Your task to perform on an android device: Show me productivity apps on the Play Store Image 0: 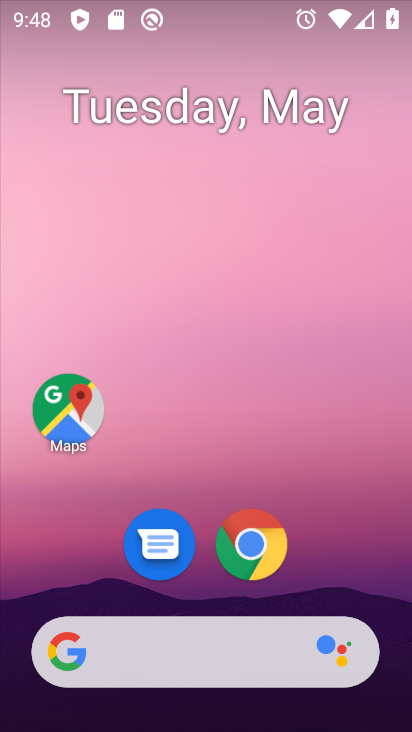
Step 0: drag from (332, 500) to (332, 79)
Your task to perform on an android device: Show me productivity apps on the Play Store Image 1: 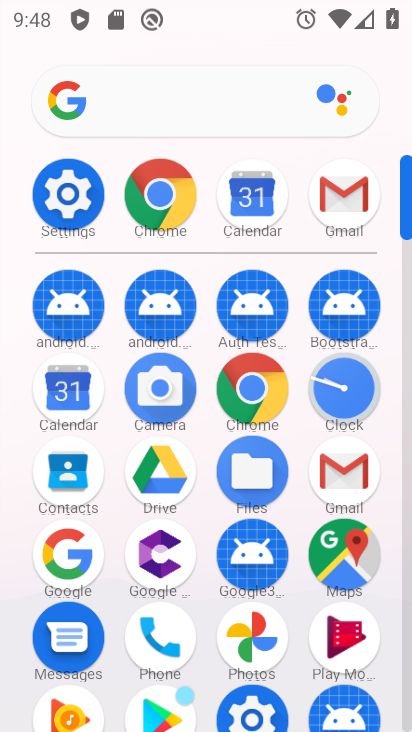
Step 1: drag from (290, 666) to (320, 400)
Your task to perform on an android device: Show me productivity apps on the Play Store Image 2: 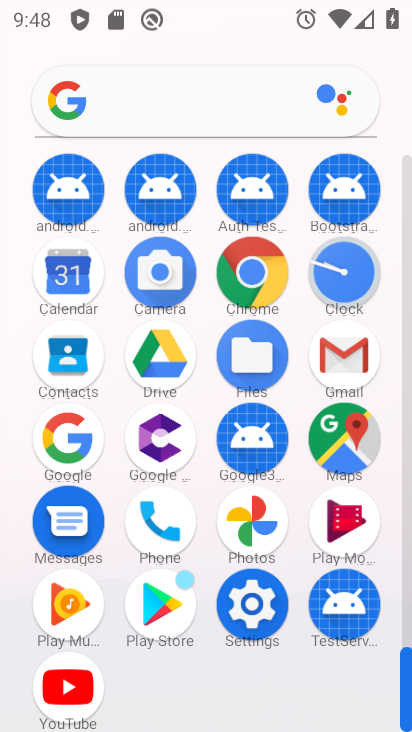
Step 2: click (169, 588)
Your task to perform on an android device: Show me productivity apps on the Play Store Image 3: 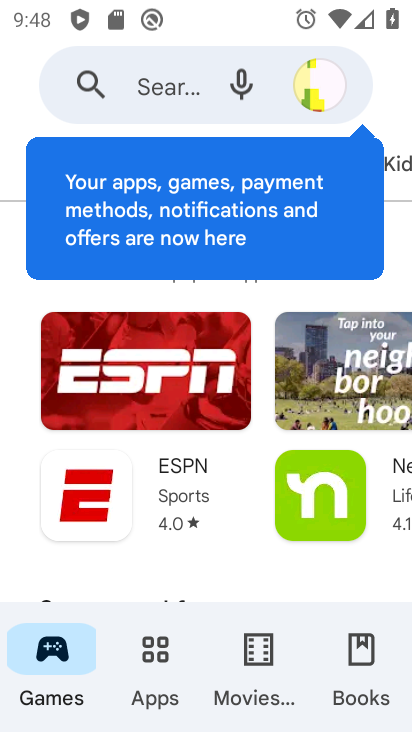
Step 3: click (146, 661)
Your task to perform on an android device: Show me productivity apps on the Play Store Image 4: 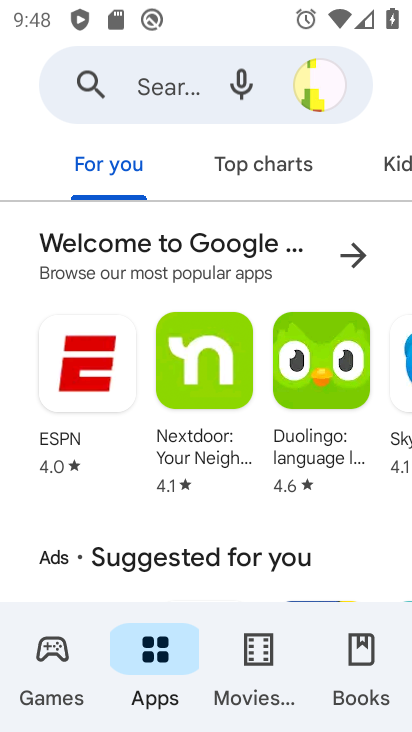
Step 4: drag from (333, 178) to (64, 161)
Your task to perform on an android device: Show me productivity apps on the Play Store Image 5: 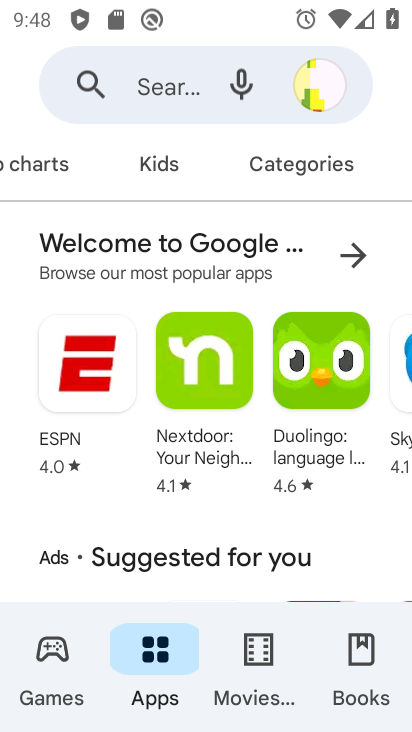
Step 5: click (287, 171)
Your task to perform on an android device: Show me productivity apps on the Play Store Image 6: 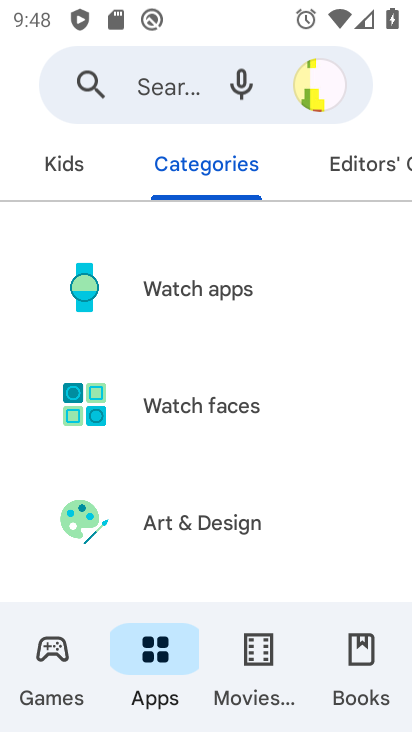
Step 6: drag from (193, 579) to (245, 299)
Your task to perform on an android device: Show me productivity apps on the Play Store Image 7: 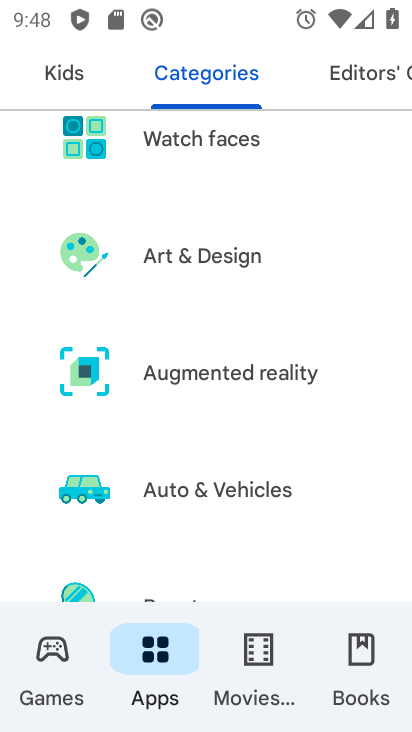
Step 7: drag from (218, 551) to (284, 278)
Your task to perform on an android device: Show me productivity apps on the Play Store Image 8: 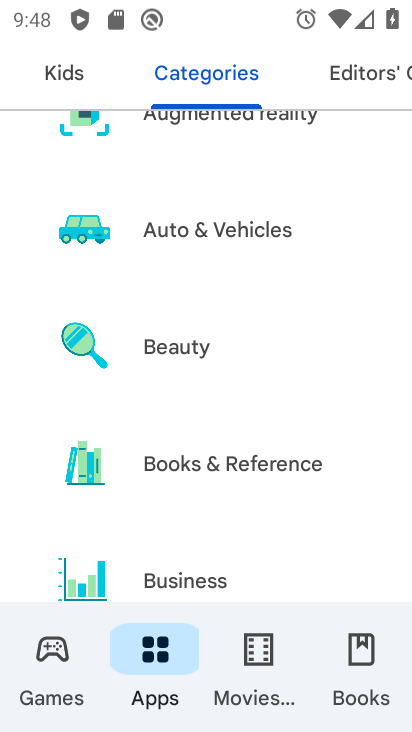
Step 8: drag from (253, 531) to (261, 322)
Your task to perform on an android device: Show me productivity apps on the Play Store Image 9: 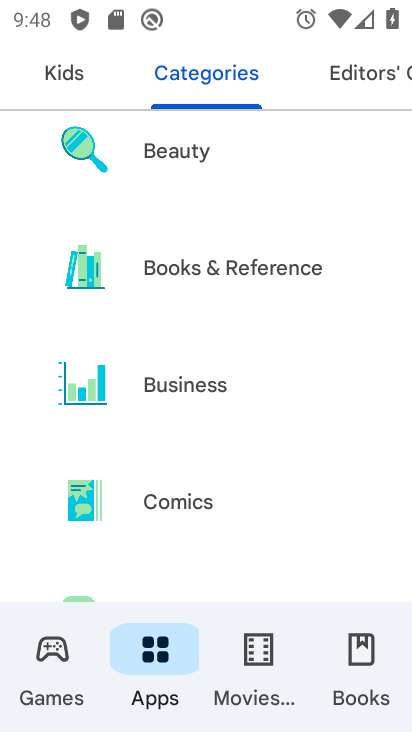
Step 9: drag from (268, 542) to (299, 348)
Your task to perform on an android device: Show me productivity apps on the Play Store Image 10: 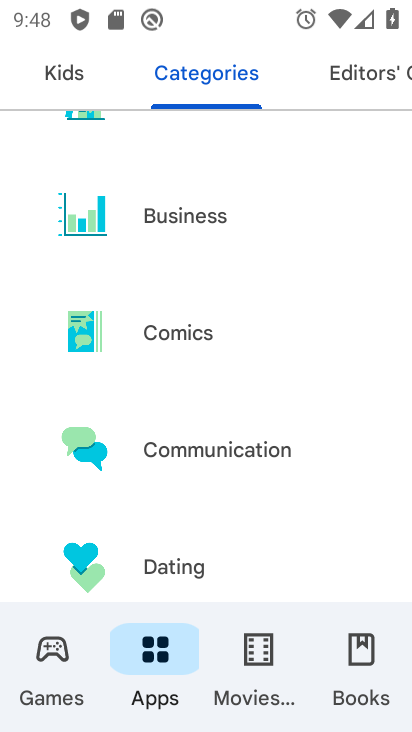
Step 10: drag from (267, 553) to (306, 286)
Your task to perform on an android device: Show me productivity apps on the Play Store Image 11: 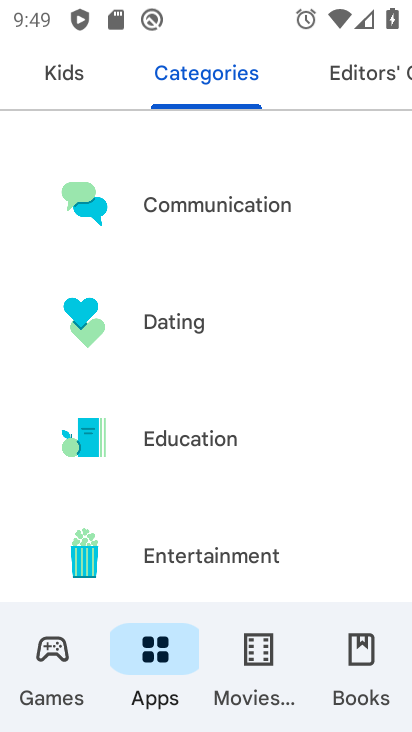
Step 11: drag from (266, 505) to (283, 258)
Your task to perform on an android device: Show me productivity apps on the Play Store Image 12: 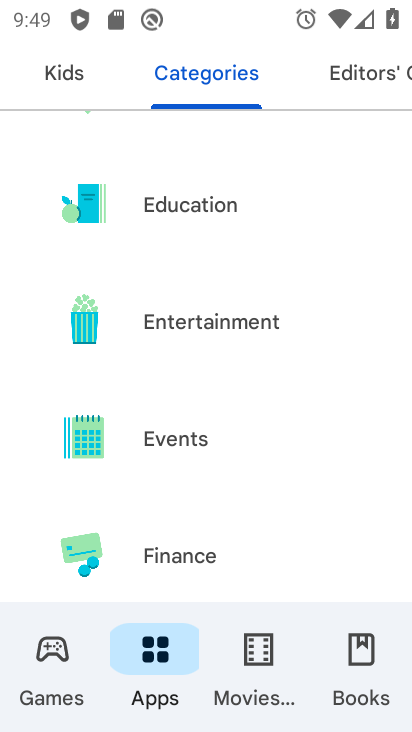
Step 12: drag from (256, 509) to (293, 311)
Your task to perform on an android device: Show me productivity apps on the Play Store Image 13: 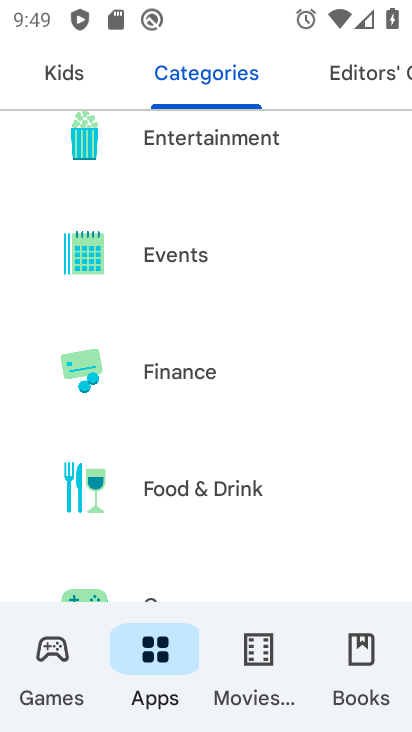
Step 13: drag from (252, 538) to (270, 317)
Your task to perform on an android device: Show me productivity apps on the Play Store Image 14: 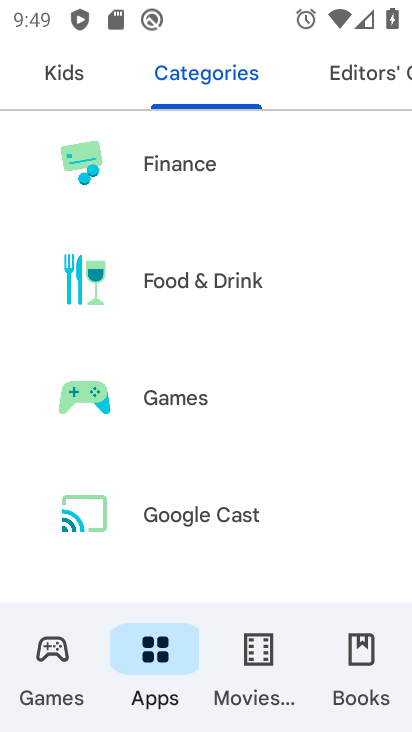
Step 14: drag from (255, 540) to (289, 308)
Your task to perform on an android device: Show me productivity apps on the Play Store Image 15: 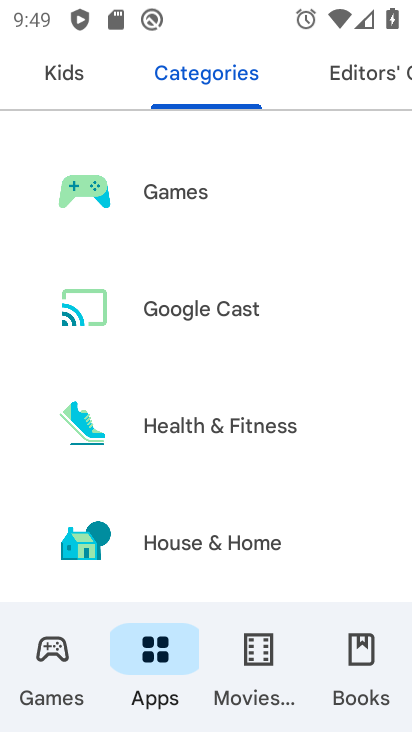
Step 15: drag from (270, 518) to (293, 251)
Your task to perform on an android device: Show me productivity apps on the Play Store Image 16: 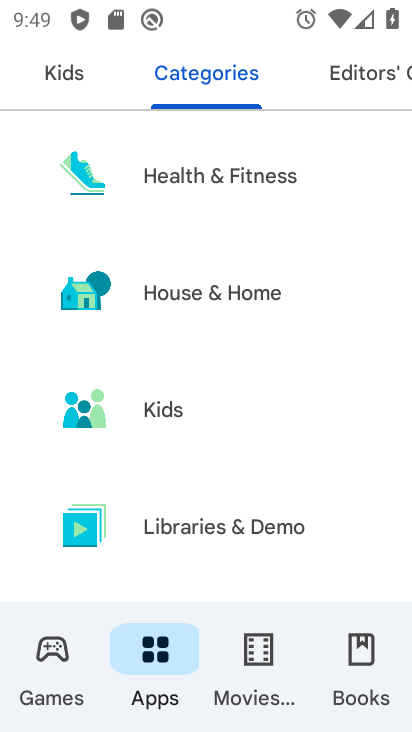
Step 16: drag from (251, 461) to (293, 222)
Your task to perform on an android device: Show me productivity apps on the Play Store Image 17: 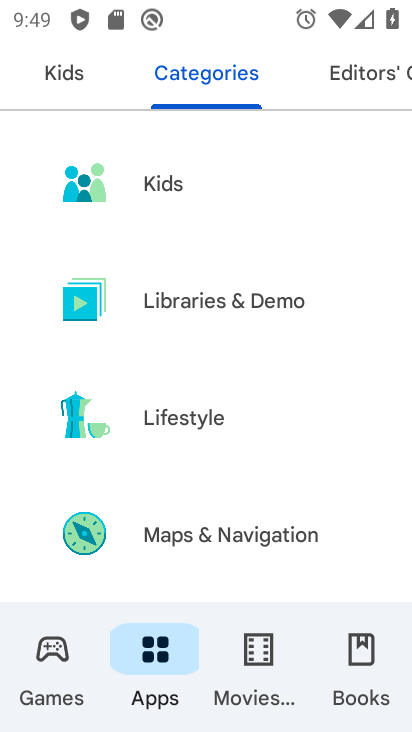
Step 17: drag from (269, 474) to (284, 185)
Your task to perform on an android device: Show me productivity apps on the Play Store Image 18: 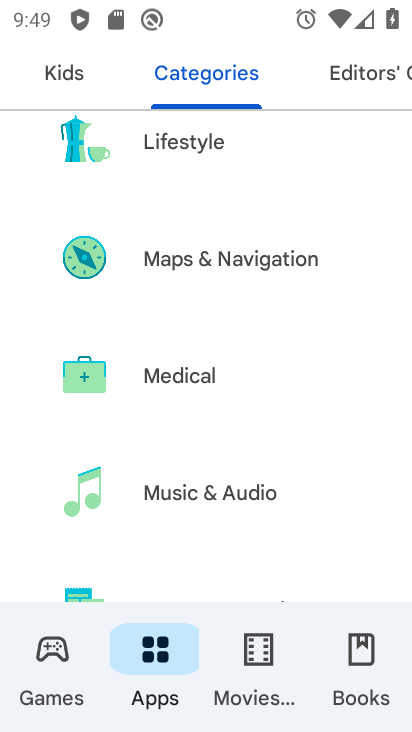
Step 18: drag from (270, 532) to (291, 215)
Your task to perform on an android device: Show me productivity apps on the Play Store Image 19: 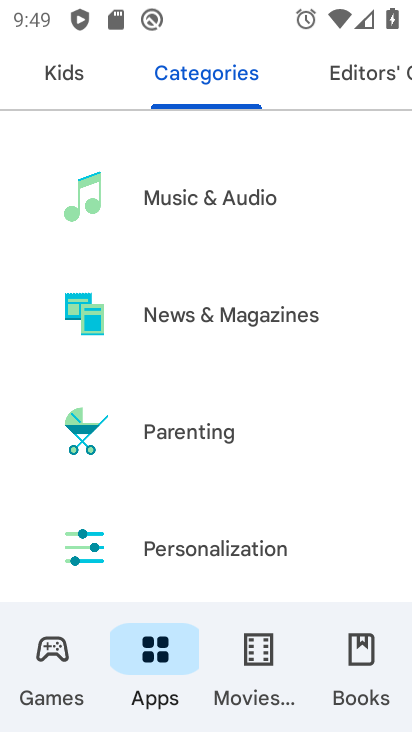
Step 19: drag from (271, 474) to (300, 233)
Your task to perform on an android device: Show me productivity apps on the Play Store Image 20: 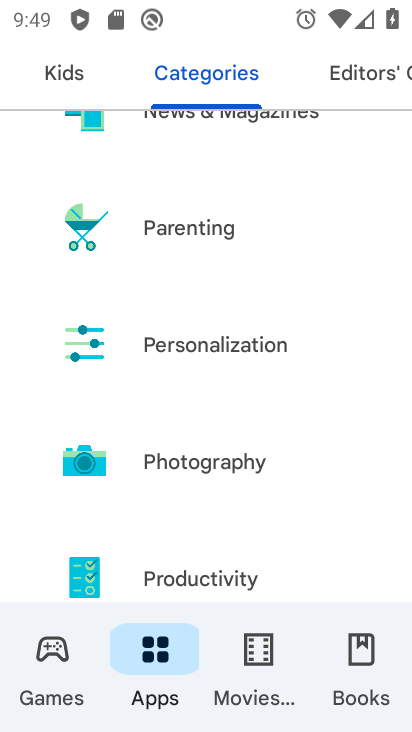
Step 20: drag from (254, 533) to (289, 273)
Your task to perform on an android device: Show me productivity apps on the Play Store Image 21: 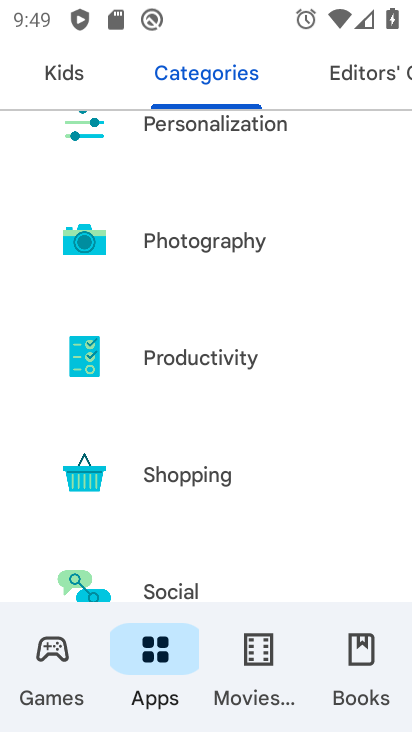
Step 21: click (226, 353)
Your task to perform on an android device: Show me productivity apps on the Play Store Image 22: 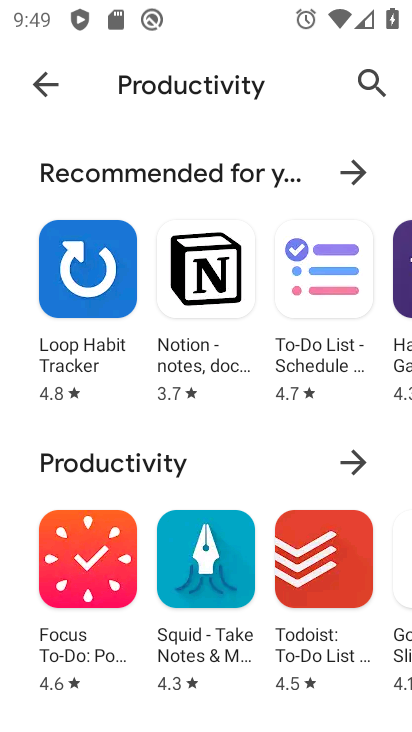
Step 22: task complete